Your task to perform on an android device: set the timer Image 0: 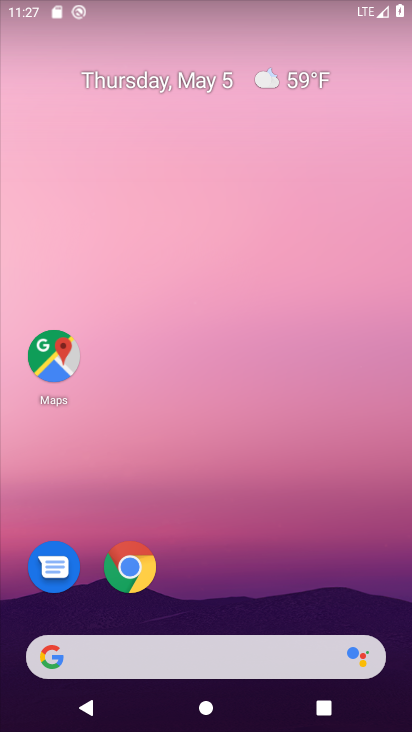
Step 0: drag from (310, 580) to (324, 15)
Your task to perform on an android device: set the timer Image 1: 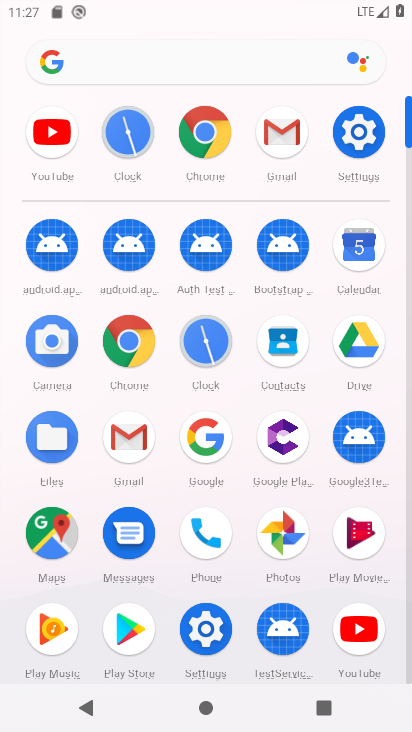
Step 1: click (199, 340)
Your task to perform on an android device: set the timer Image 2: 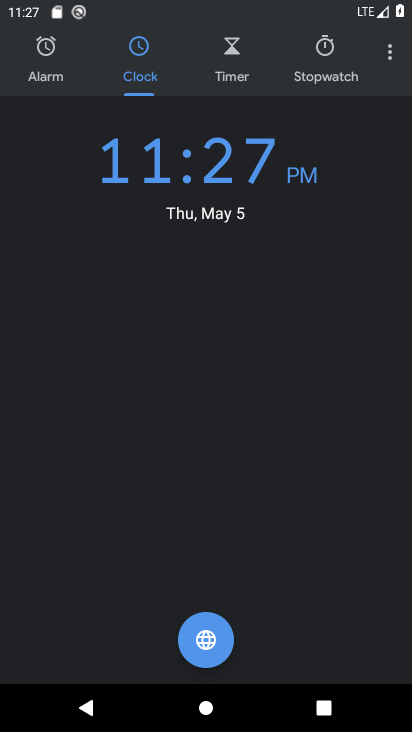
Step 2: click (225, 70)
Your task to perform on an android device: set the timer Image 3: 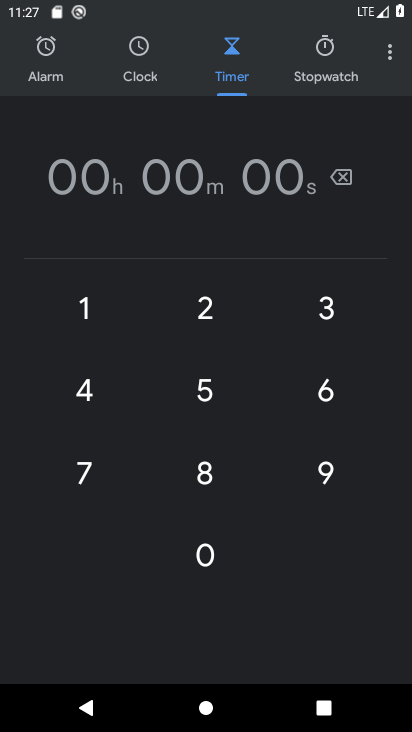
Step 3: click (87, 394)
Your task to perform on an android device: set the timer Image 4: 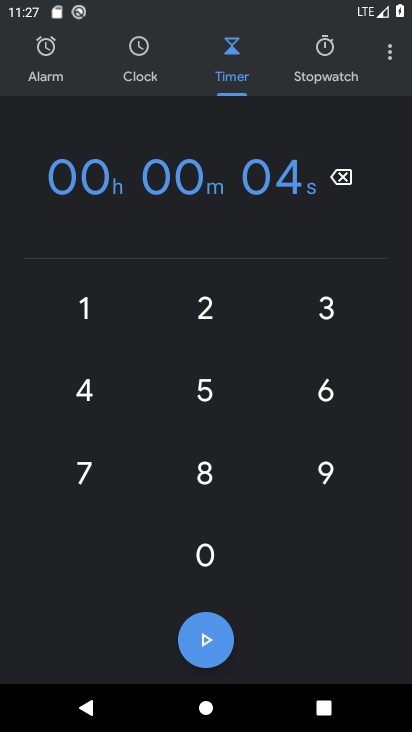
Step 4: click (195, 391)
Your task to perform on an android device: set the timer Image 5: 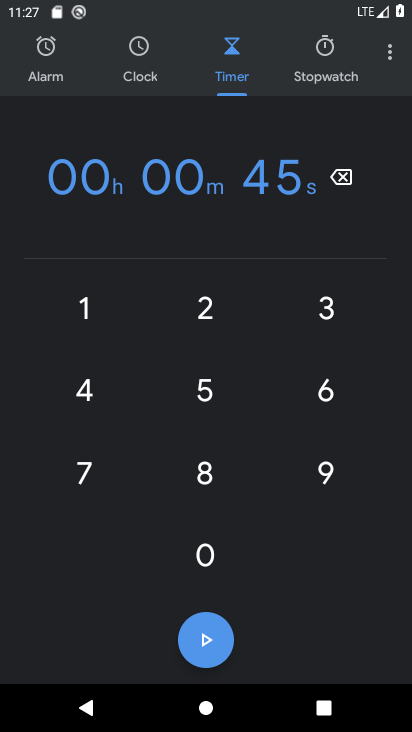
Step 5: click (197, 553)
Your task to perform on an android device: set the timer Image 6: 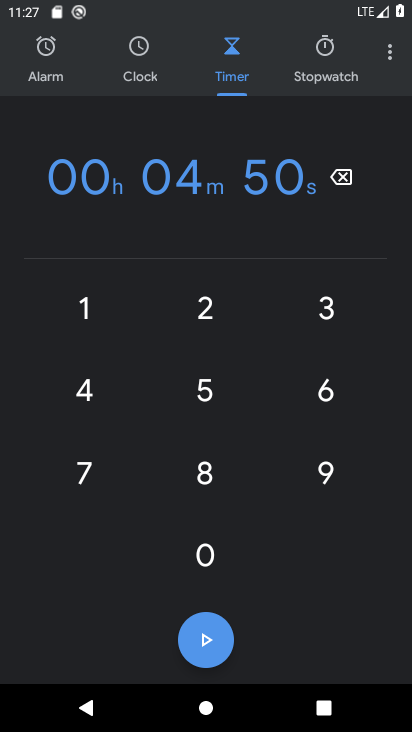
Step 6: click (199, 388)
Your task to perform on an android device: set the timer Image 7: 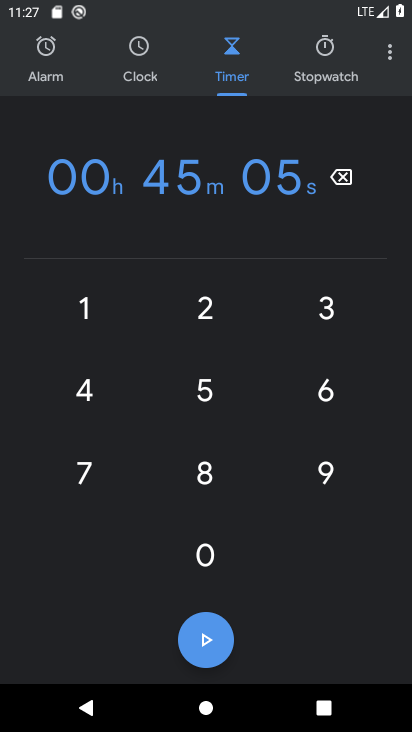
Step 7: click (207, 647)
Your task to perform on an android device: set the timer Image 8: 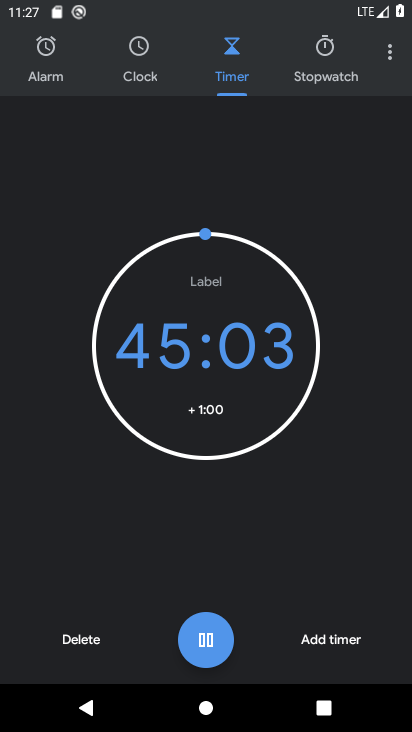
Step 8: click (207, 645)
Your task to perform on an android device: set the timer Image 9: 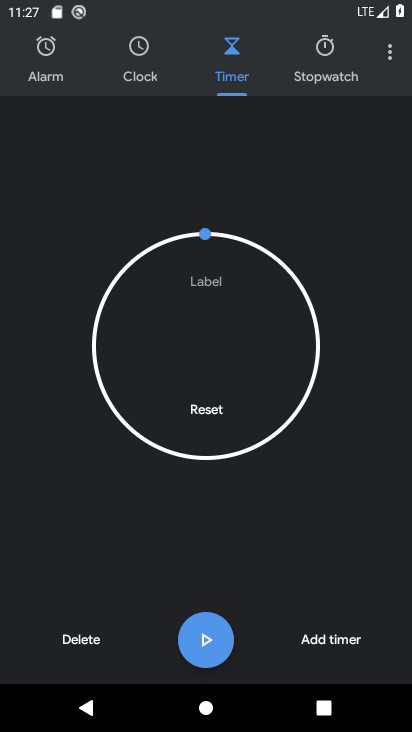
Step 9: click (208, 637)
Your task to perform on an android device: set the timer Image 10: 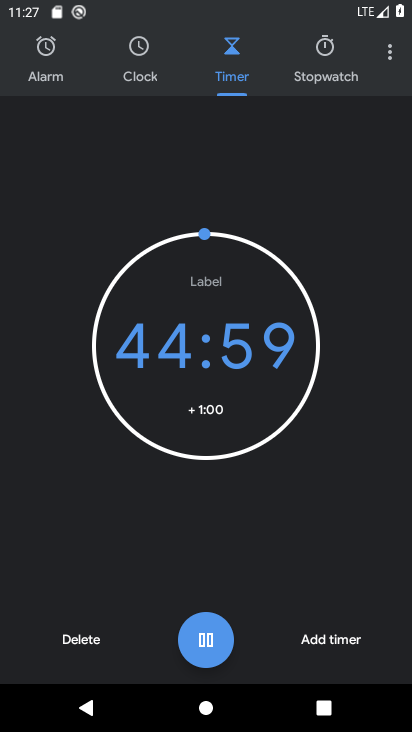
Step 10: task complete